Your task to perform on an android device: Do I have any events tomorrow? Image 0: 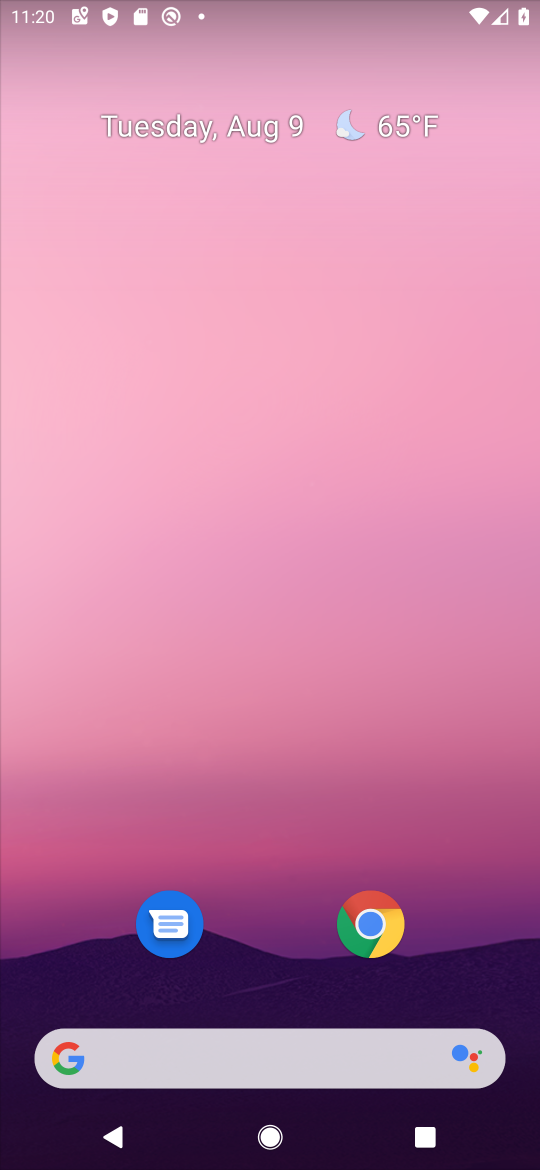
Step 0: drag from (289, 898) to (303, 35)
Your task to perform on an android device: Do I have any events tomorrow? Image 1: 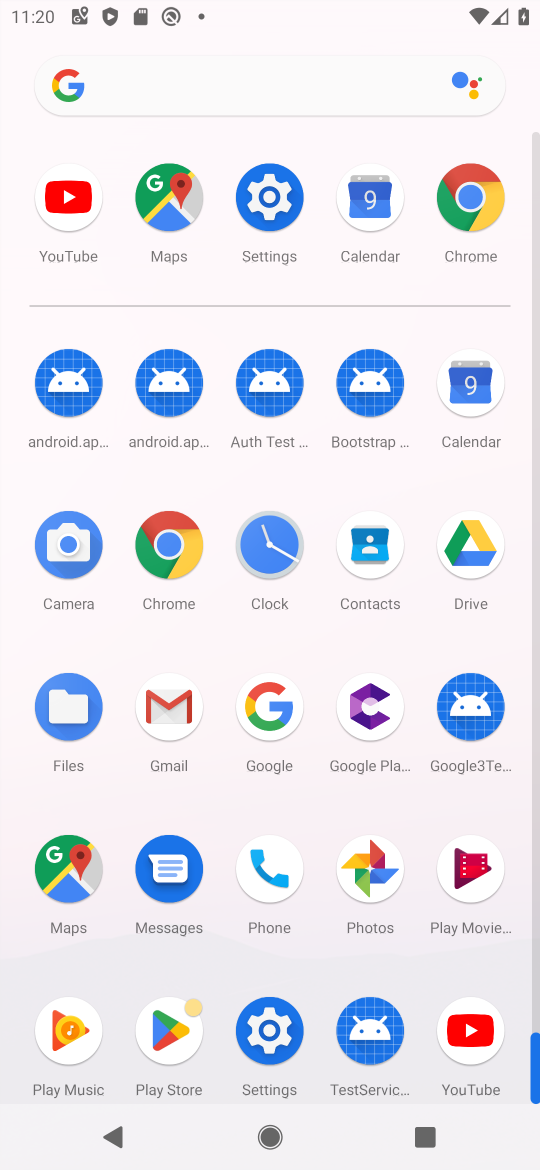
Step 1: click (472, 381)
Your task to perform on an android device: Do I have any events tomorrow? Image 2: 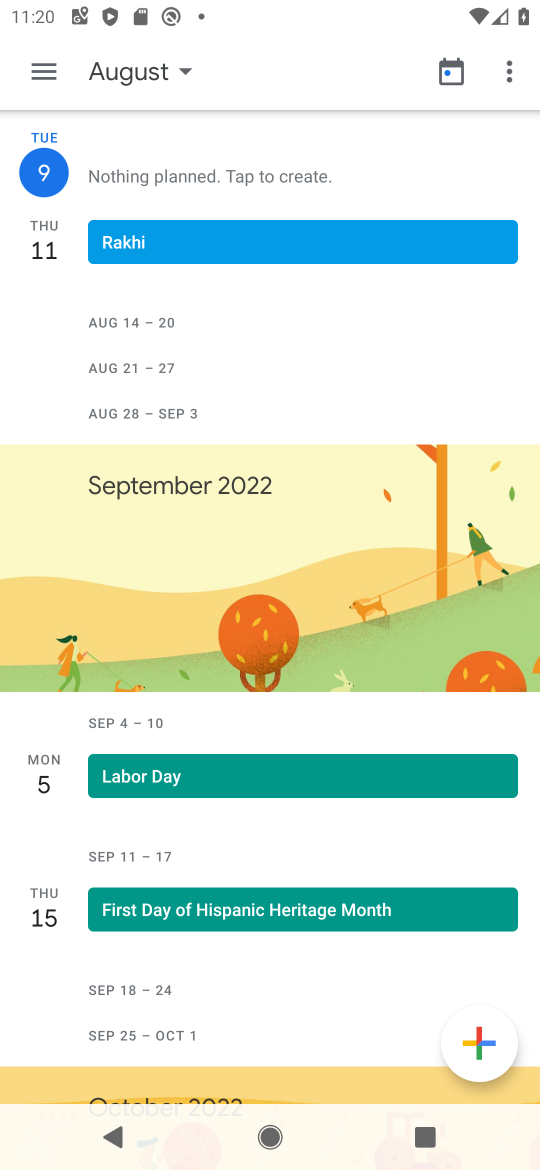
Step 2: click (151, 65)
Your task to perform on an android device: Do I have any events tomorrow? Image 3: 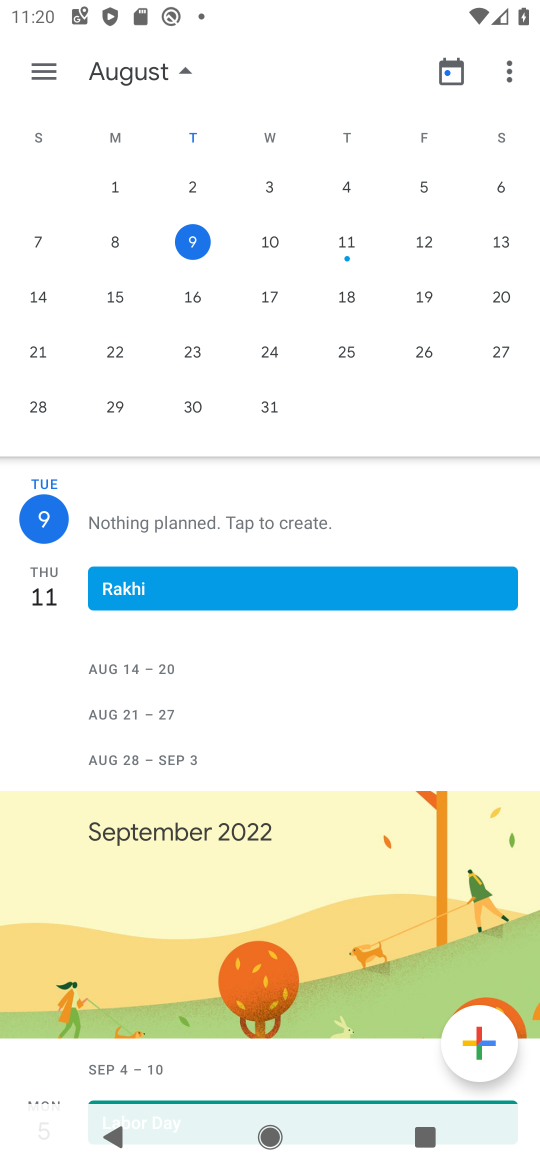
Step 3: click (355, 238)
Your task to perform on an android device: Do I have any events tomorrow? Image 4: 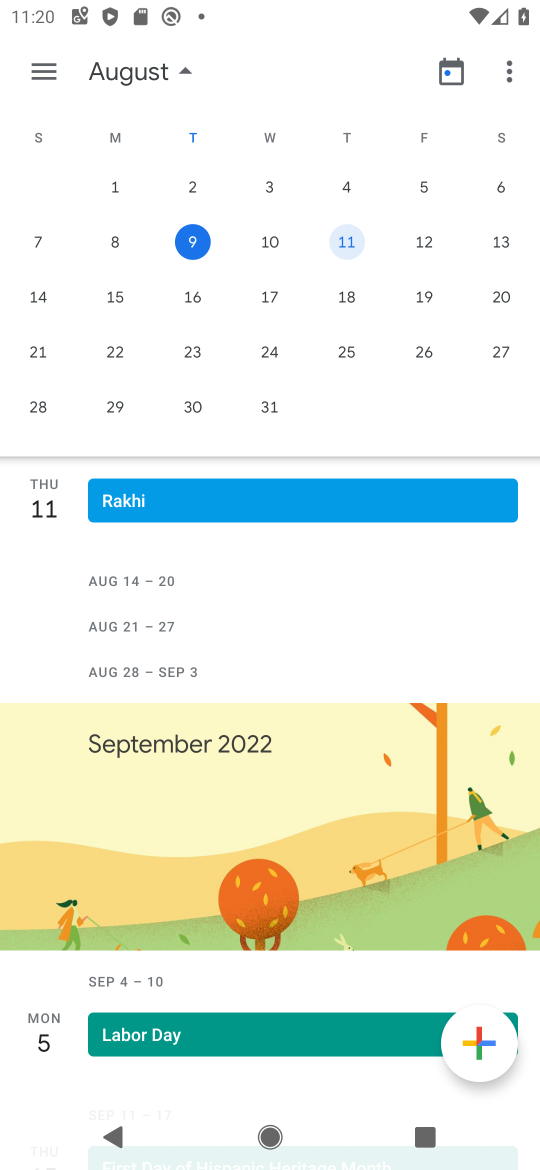
Step 4: task complete